Your task to perform on an android device: How much does the new iPad cost? Image 0: 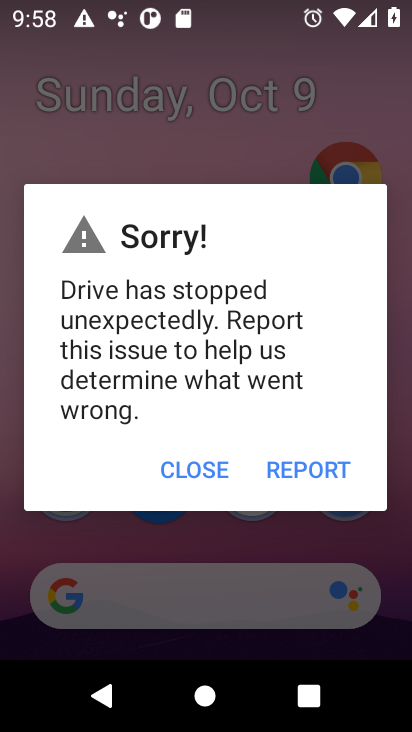
Step 0: click (197, 453)
Your task to perform on an android device: How much does the new iPad cost? Image 1: 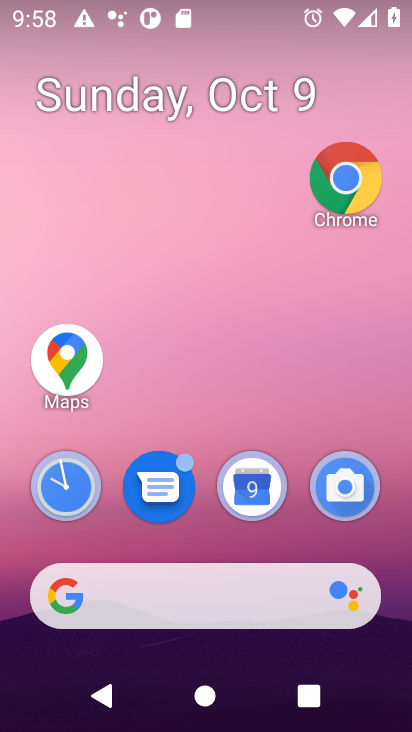
Step 1: drag from (287, 576) to (359, 112)
Your task to perform on an android device: How much does the new iPad cost? Image 2: 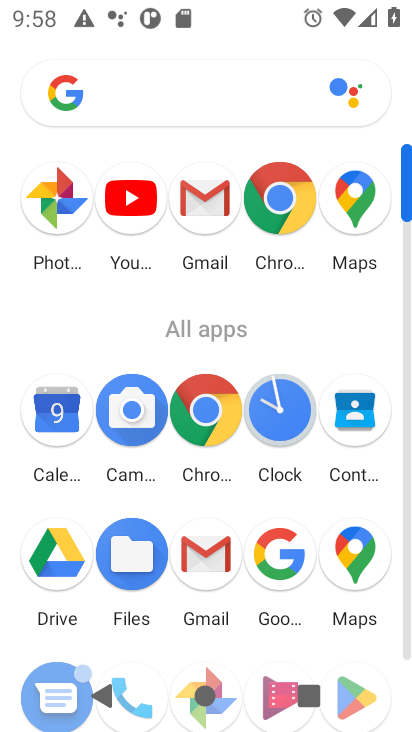
Step 2: click (274, 552)
Your task to perform on an android device: How much does the new iPad cost? Image 3: 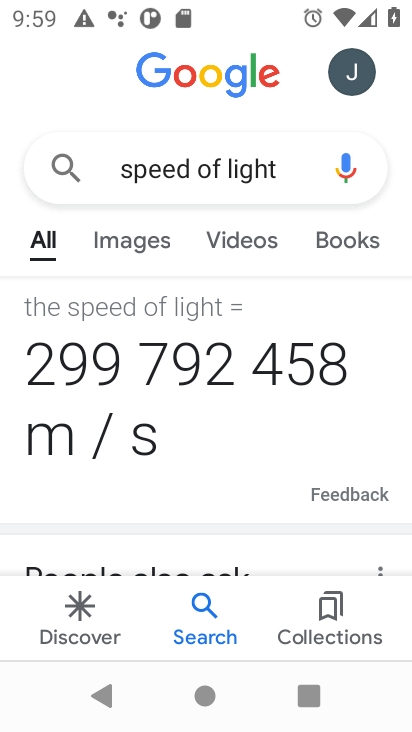
Step 3: click (311, 182)
Your task to perform on an android device: How much does the new iPad cost? Image 4: 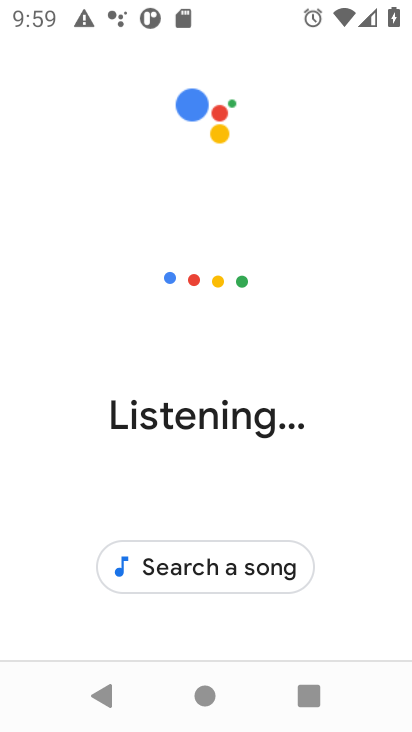
Step 4: press back button
Your task to perform on an android device: How much does the new iPad cost? Image 5: 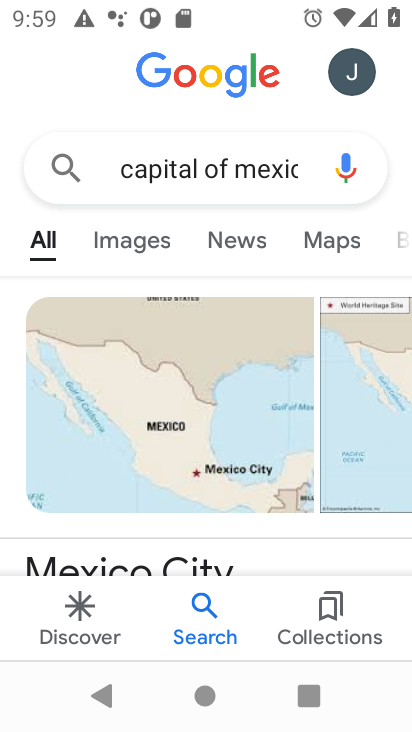
Step 5: click (317, 167)
Your task to perform on an android device: How much does the new iPad cost? Image 6: 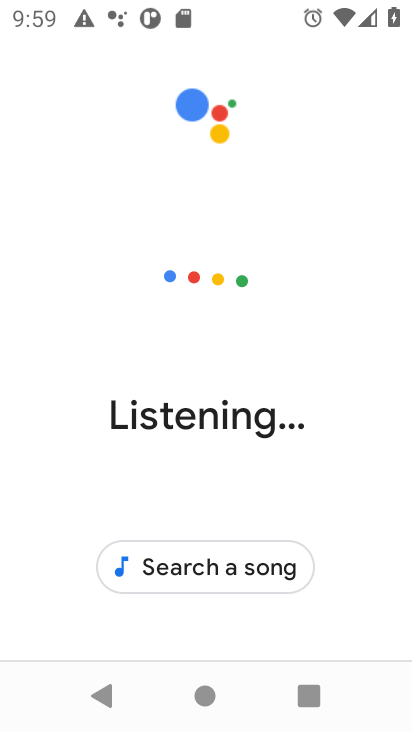
Step 6: press back button
Your task to perform on an android device: How much does the new iPad cost? Image 7: 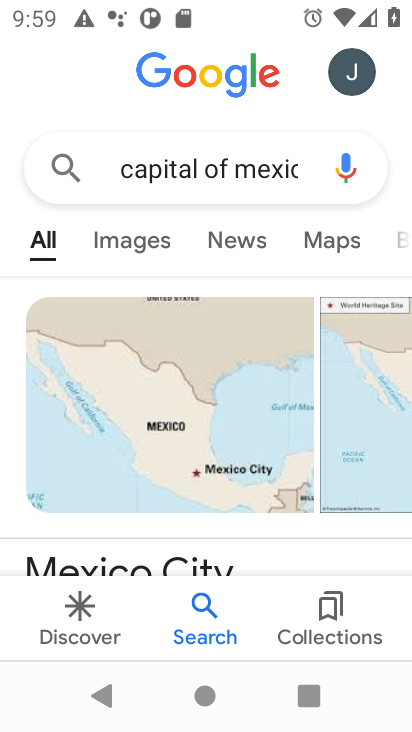
Step 7: click (270, 187)
Your task to perform on an android device: How much does the new iPad cost? Image 8: 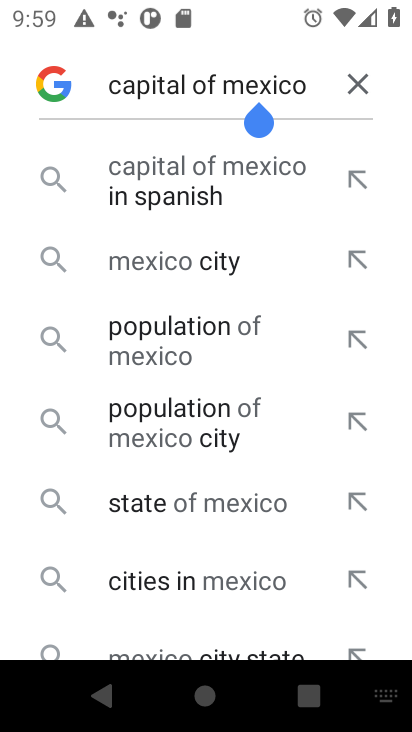
Step 8: click (360, 80)
Your task to perform on an android device: How much does the new iPad cost? Image 9: 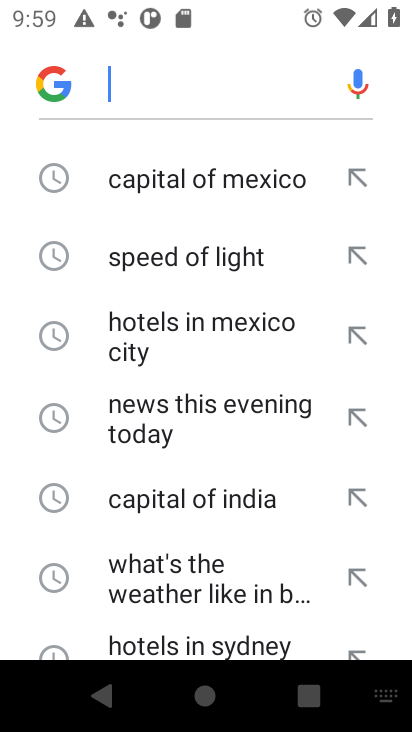
Step 9: type "new iPad cost"
Your task to perform on an android device: How much does the new iPad cost? Image 10: 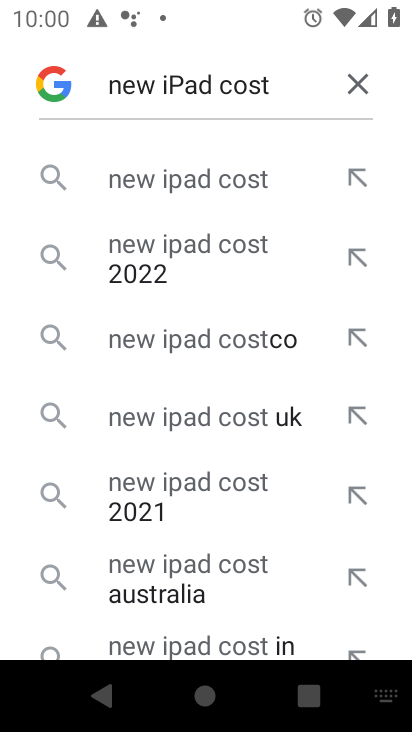
Step 10: click (180, 184)
Your task to perform on an android device: How much does the new iPad cost? Image 11: 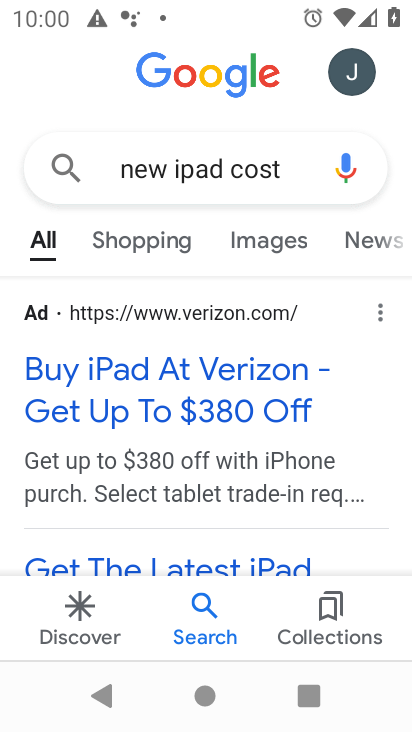
Step 11: task complete